Your task to perform on an android device: snooze an email in the gmail app Image 0: 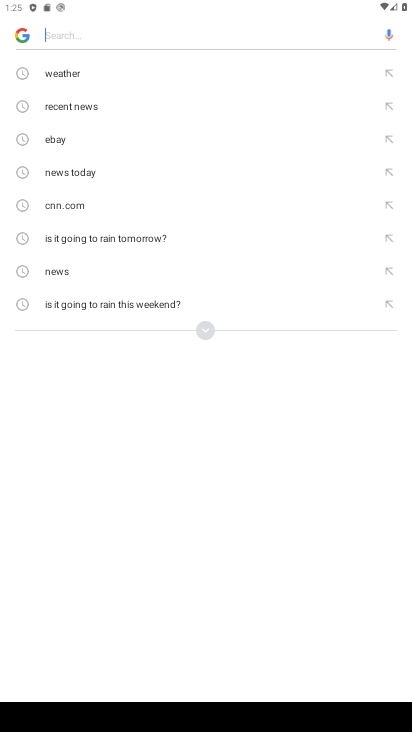
Step 0: press home button
Your task to perform on an android device: snooze an email in the gmail app Image 1: 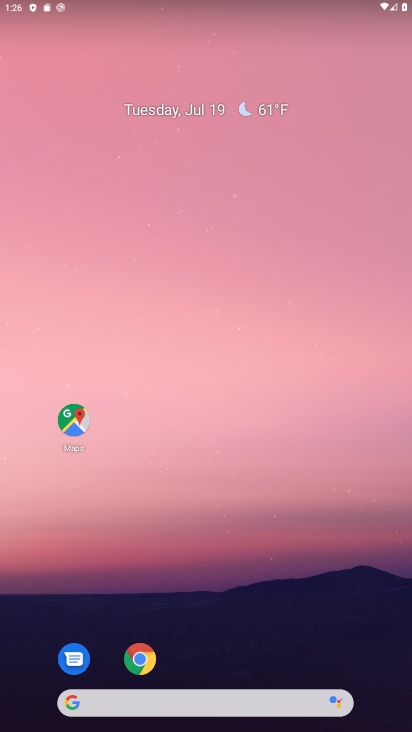
Step 1: drag from (252, 570) to (290, 15)
Your task to perform on an android device: snooze an email in the gmail app Image 2: 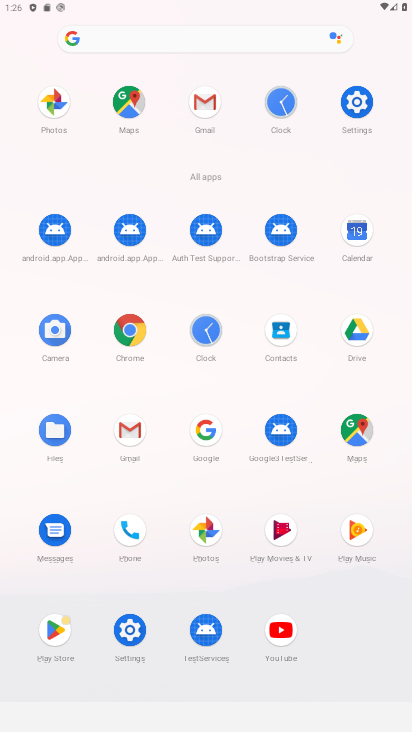
Step 2: click (133, 427)
Your task to perform on an android device: snooze an email in the gmail app Image 3: 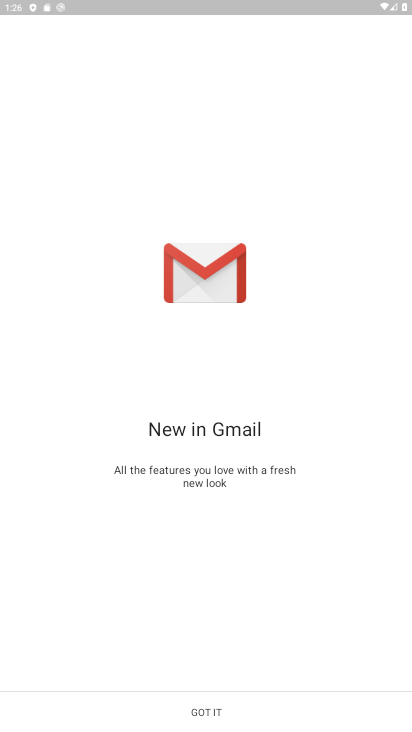
Step 3: click (257, 709)
Your task to perform on an android device: snooze an email in the gmail app Image 4: 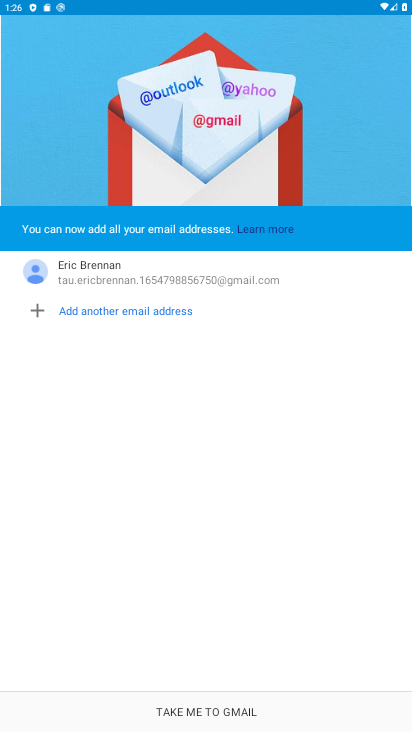
Step 4: click (230, 699)
Your task to perform on an android device: snooze an email in the gmail app Image 5: 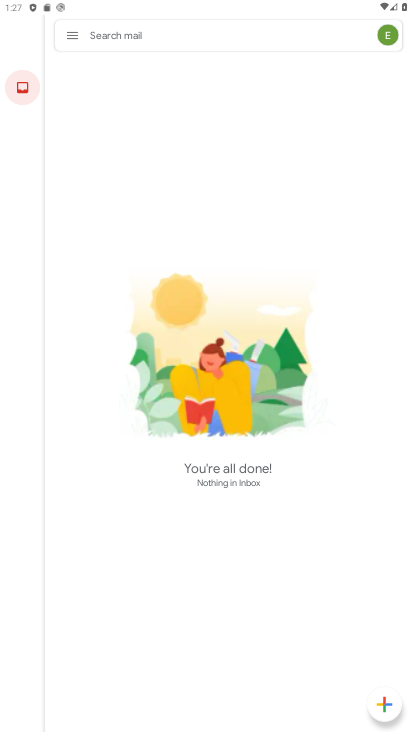
Step 5: click (65, 28)
Your task to perform on an android device: snooze an email in the gmail app Image 6: 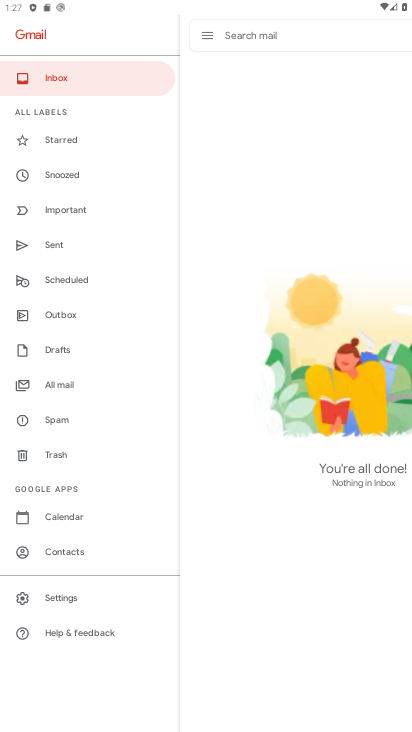
Step 6: click (61, 383)
Your task to perform on an android device: snooze an email in the gmail app Image 7: 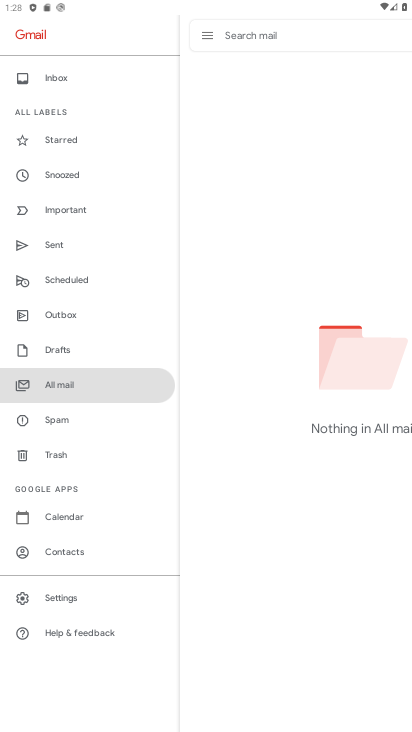
Step 7: task complete